Your task to perform on an android device: When is my next appointment? Image 0: 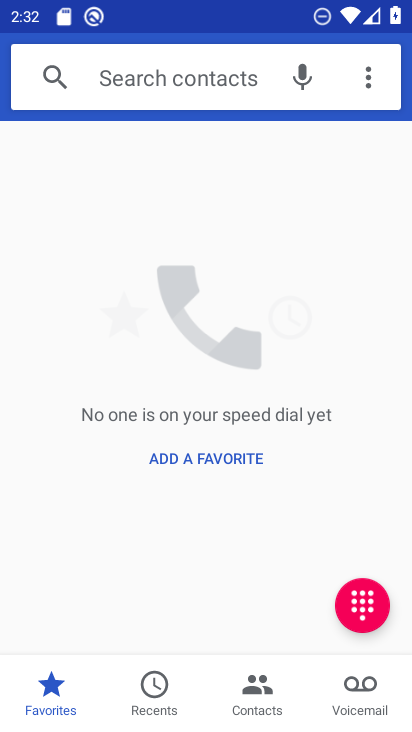
Step 0: press home button
Your task to perform on an android device: When is my next appointment? Image 1: 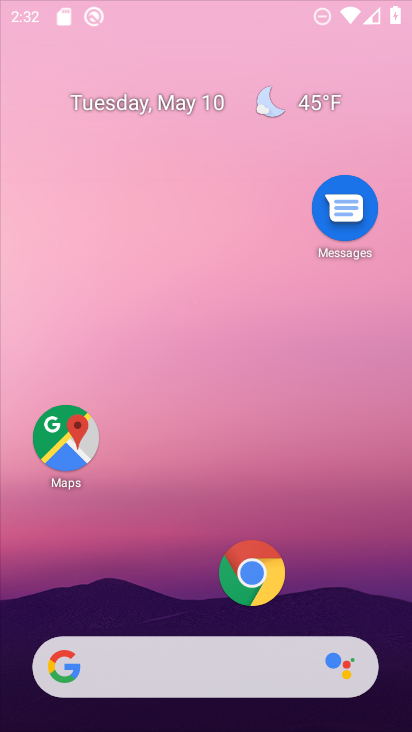
Step 1: drag from (200, 618) to (206, 182)
Your task to perform on an android device: When is my next appointment? Image 2: 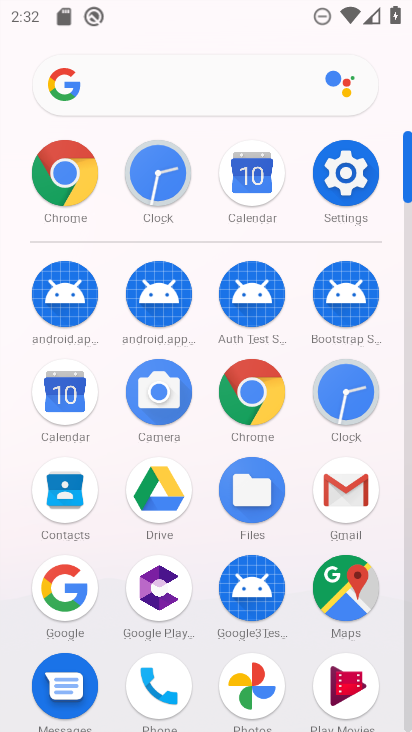
Step 2: drag from (198, 705) to (183, 339)
Your task to perform on an android device: When is my next appointment? Image 3: 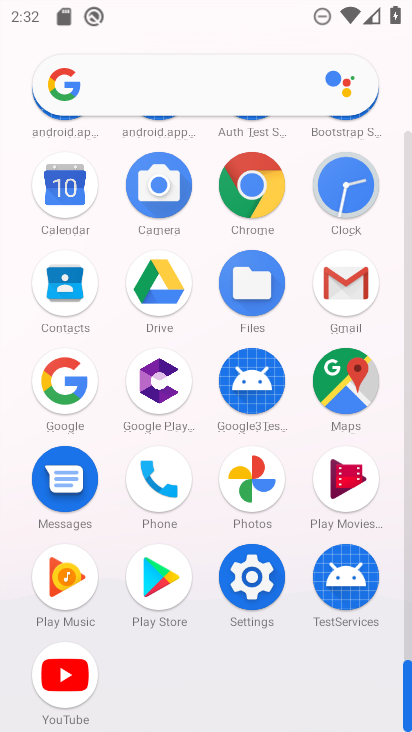
Step 3: click (56, 185)
Your task to perform on an android device: When is my next appointment? Image 4: 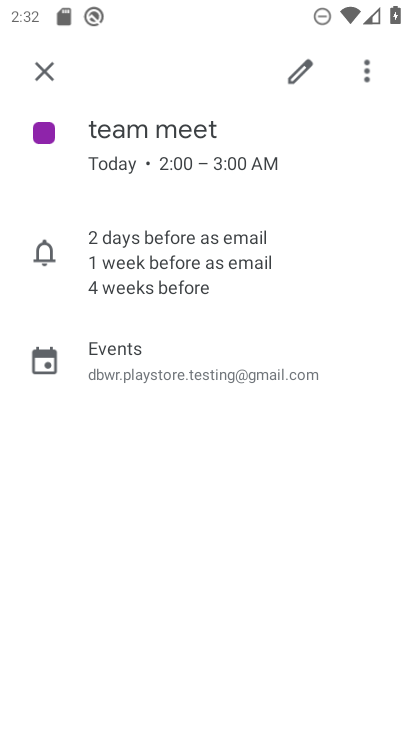
Step 4: click (52, 78)
Your task to perform on an android device: When is my next appointment? Image 5: 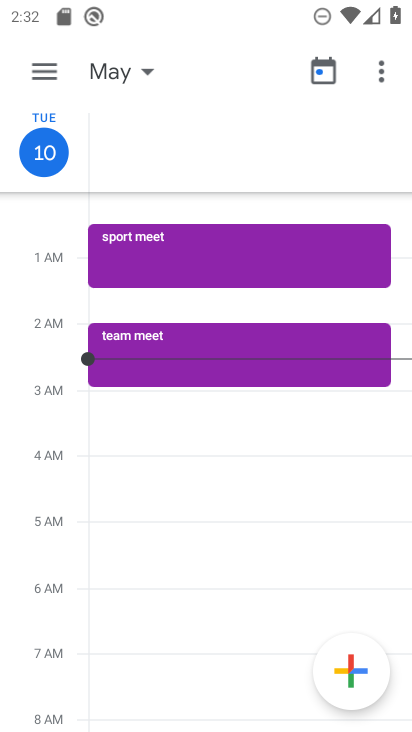
Step 5: drag from (239, 532) to (255, 317)
Your task to perform on an android device: When is my next appointment? Image 6: 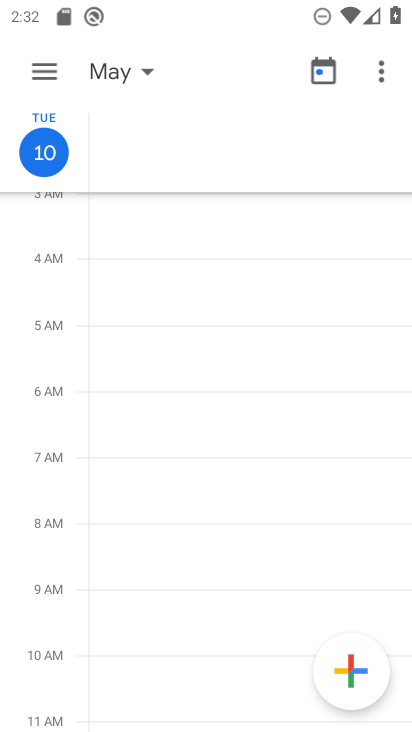
Step 6: drag from (198, 270) to (200, 727)
Your task to perform on an android device: When is my next appointment? Image 7: 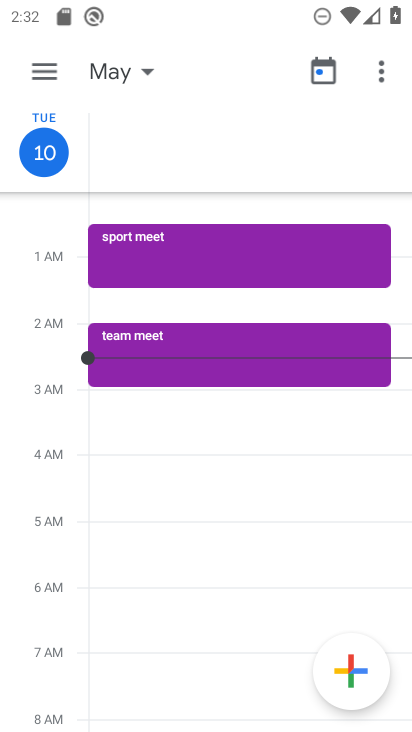
Step 7: click (143, 72)
Your task to perform on an android device: When is my next appointment? Image 8: 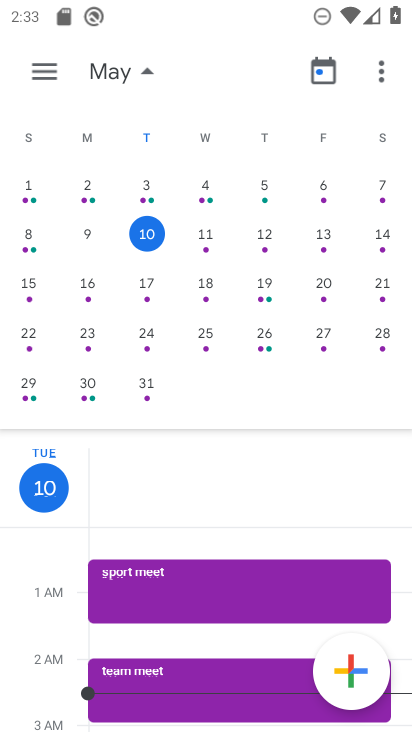
Step 8: task complete